Your task to perform on an android device: Open Maps and search for coffee Image 0: 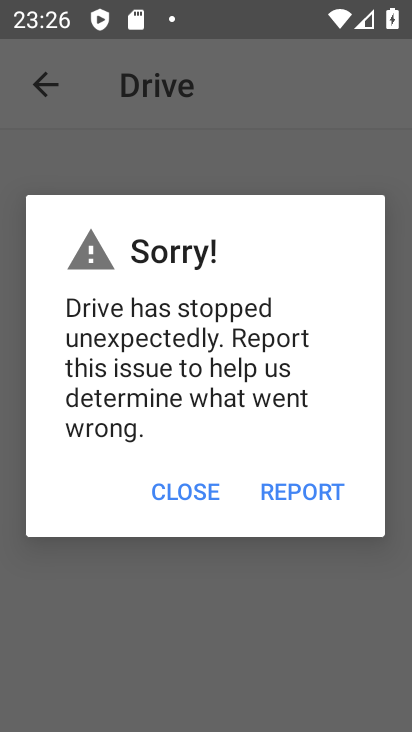
Step 0: press home button
Your task to perform on an android device: Open Maps and search for coffee Image 1: 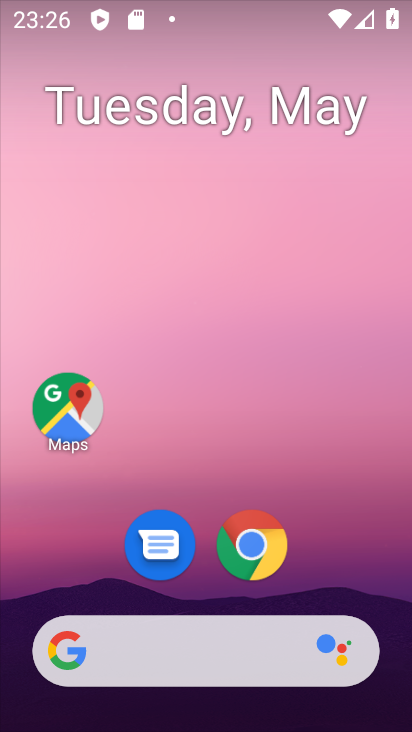
Step 1: click (65, 411)
Your task to perform on an android device: Open Maps and search for coffee Image 2: 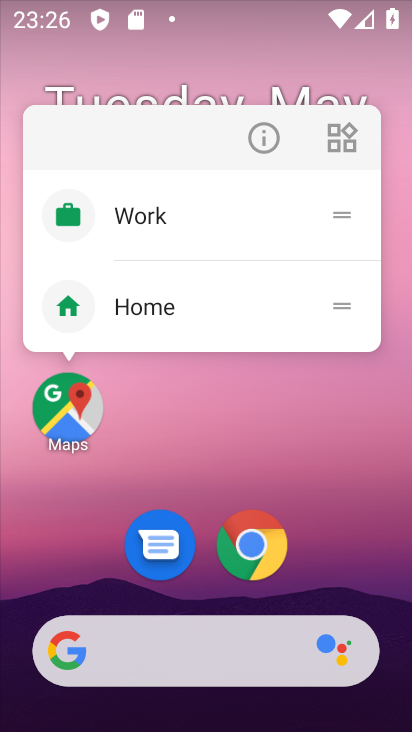
Step 2: click (65, 407)
Your task to perform on an android device: Open Maps and search for coffee Image 3: 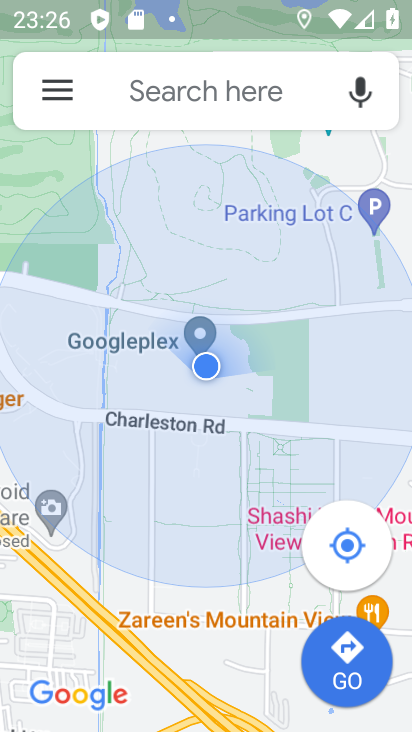
Step 3: click (192, 94)
Your task to perform on an android device: Open Maps and search for coffee Image 4: 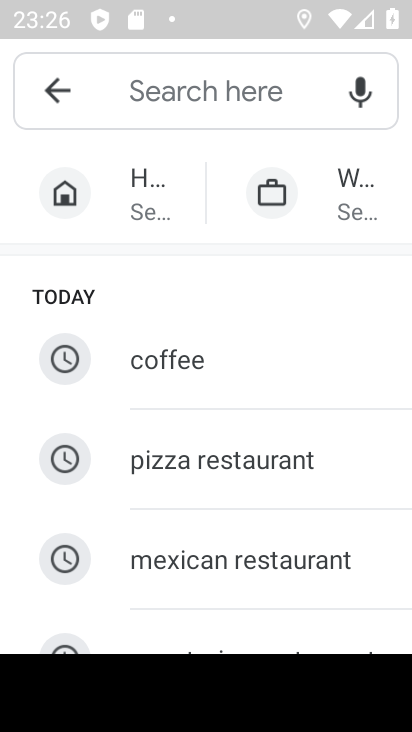
Step 4: type "coffee"
Your task to perform on an android device: Open Maps and search for coffee Image 5: 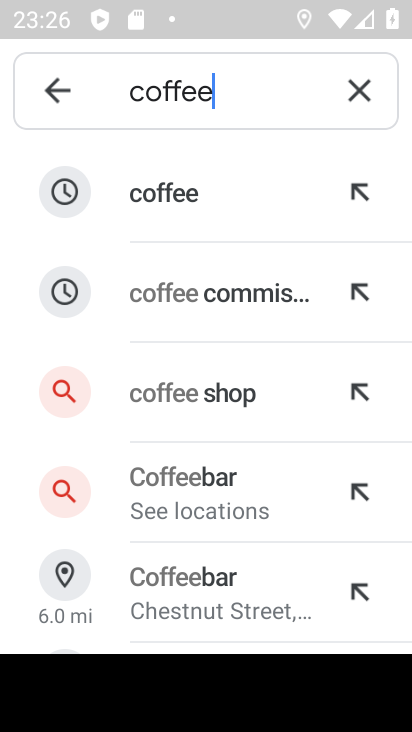
Step 5: click (181, 195)
Your task to perform on an android device: Open Maps and search for coffee Image 6: 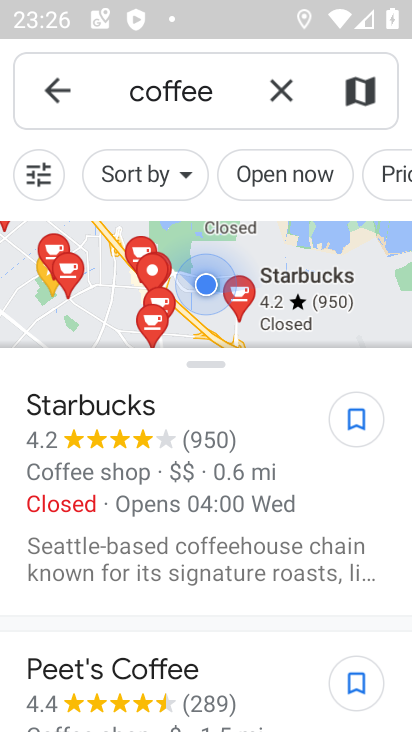
Step 6: task complete